Your task to perform on an android device: read, delete, or share a saved page in the chrome app Image 0: 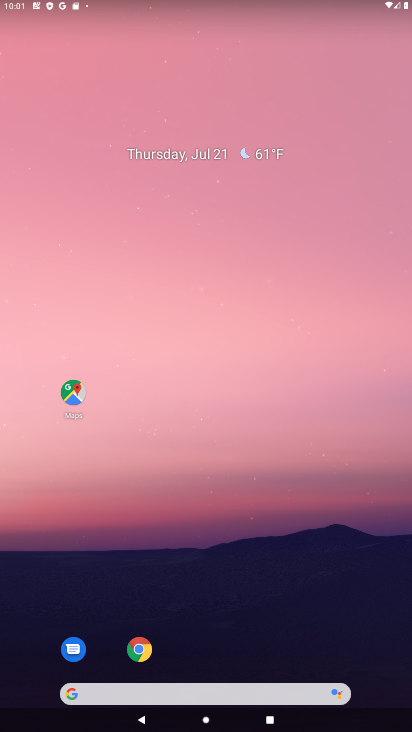
Step 0: click (140, 650)
Your task to perform on an android device: read, delete, or share a saved page in the chrome app Image 1: 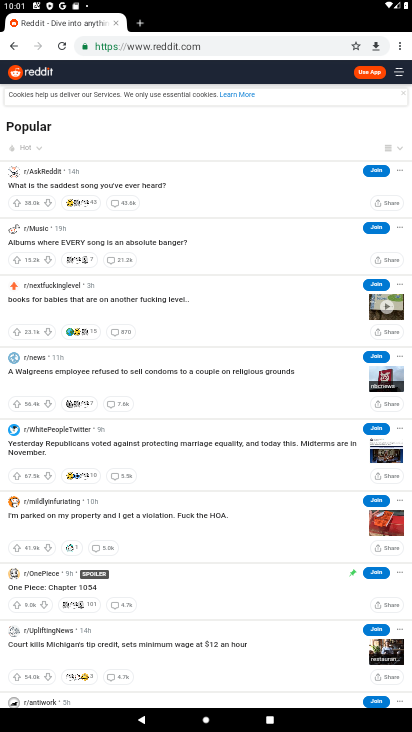
Step 1: click (399, 45)
Your task to perform on an android device: read, delete, or share a saved page in the chrome app Image 2: 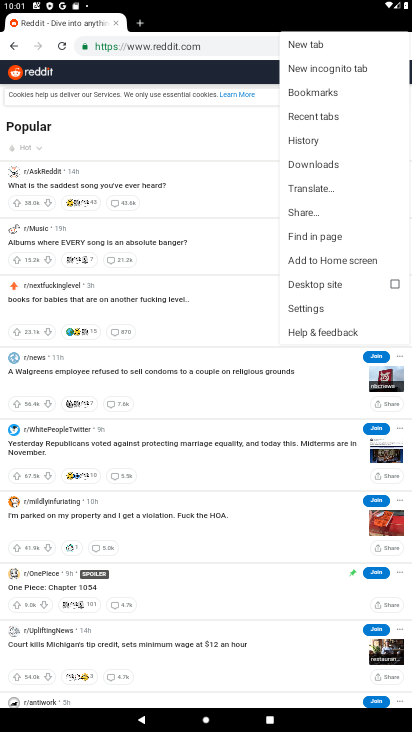
Step 2: click (317, 164)
Your task to perform on an android device: read, delete, or share a saved page in the chrome app Image 3: 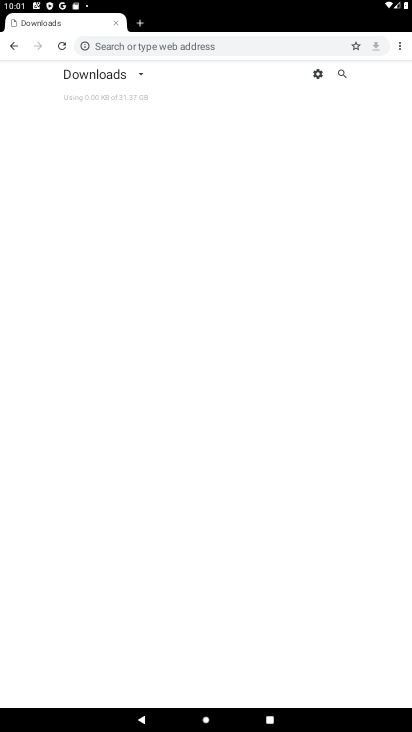
Step 3: click (140, 72)
Your task to perform on an android device: read, delete, or share a saved page in the chrome app Image 4: 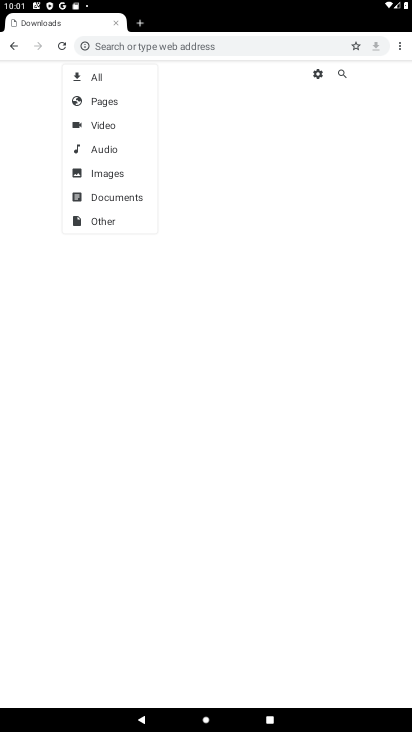
Step 4: click (115, 149)
Your task to perform on an android device: read, delete, or share a saved page in the chrome app Image 5: 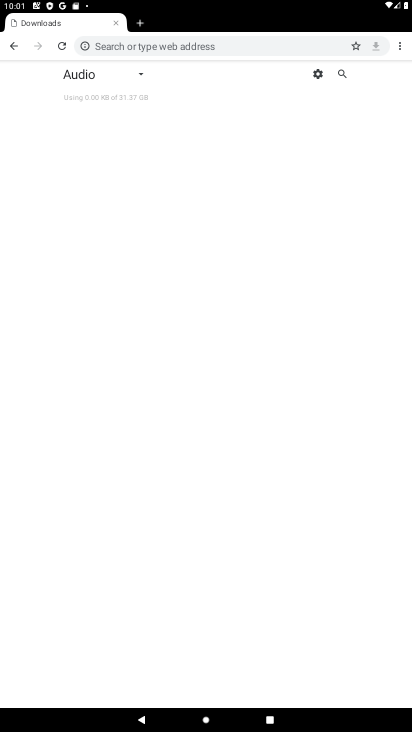
Step 5: click (141, 76)
Your task to perform on an android device: read, delete, or share a saved page in the chrome app Image 6: 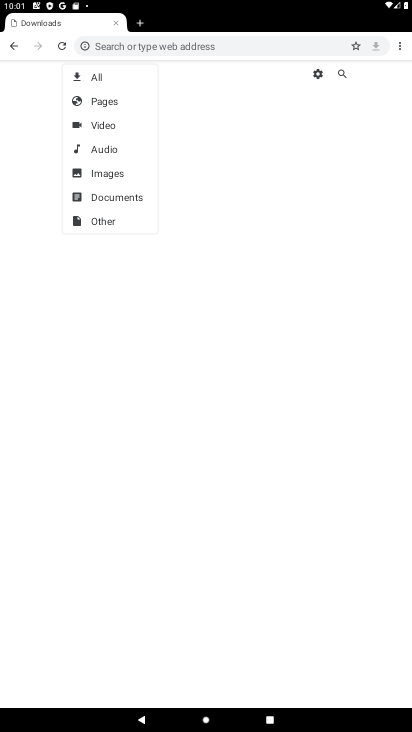
Step 6: click (96, 98)
Your task to perform on an android device: read, delete, or share a saved page in the chrome app Image 7: 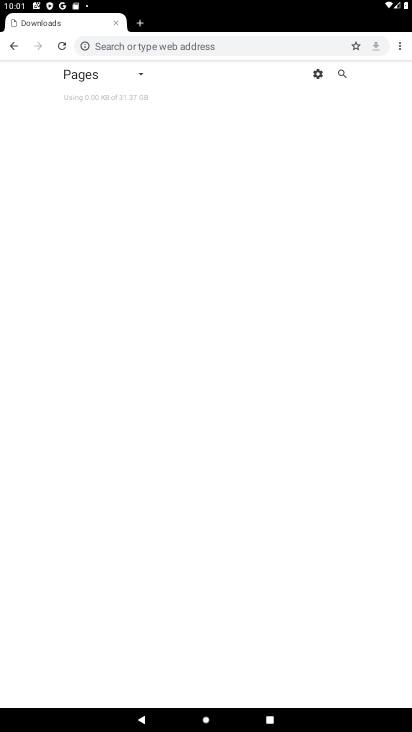
Step 7: click (354, 148)
Your task to perform on an android device: read, delete, or share a saved page in the chrome app Image 8: 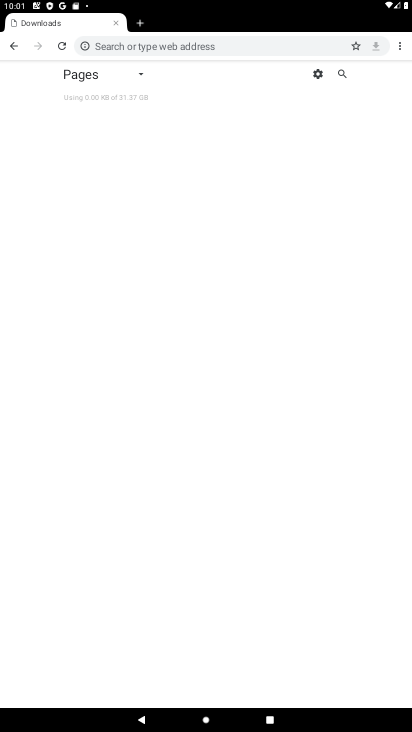
Step 8: task complete